Your task to perform on an android device: Clear the cart on walmart. Search for "razer blade" on walmart, select the first entry, and add it to the cart. Image 0: 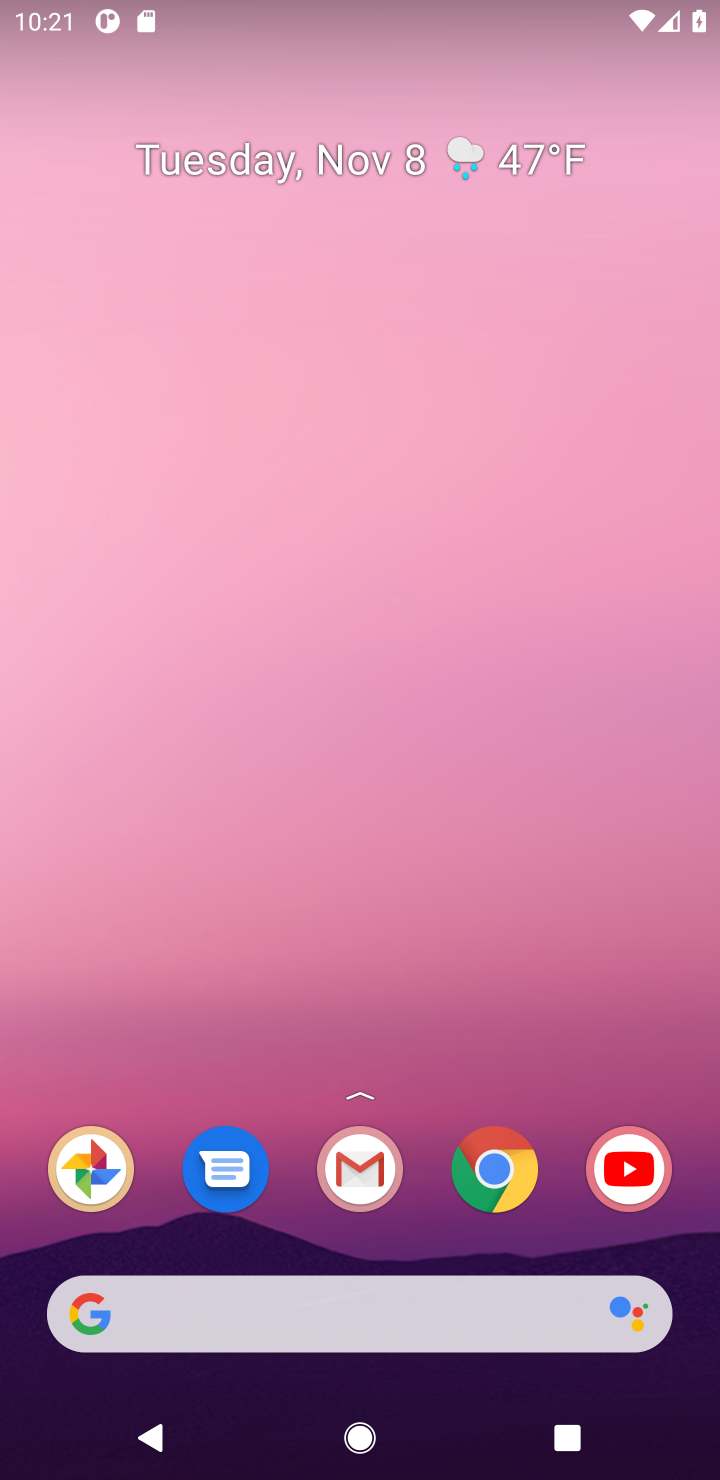
Step 0: click (504, 1176)
Your task to perform on an android device: Clear the cart on walmart. Search for "razer blade" on walmart, select the first entry, and add it to the cart. Image 1: 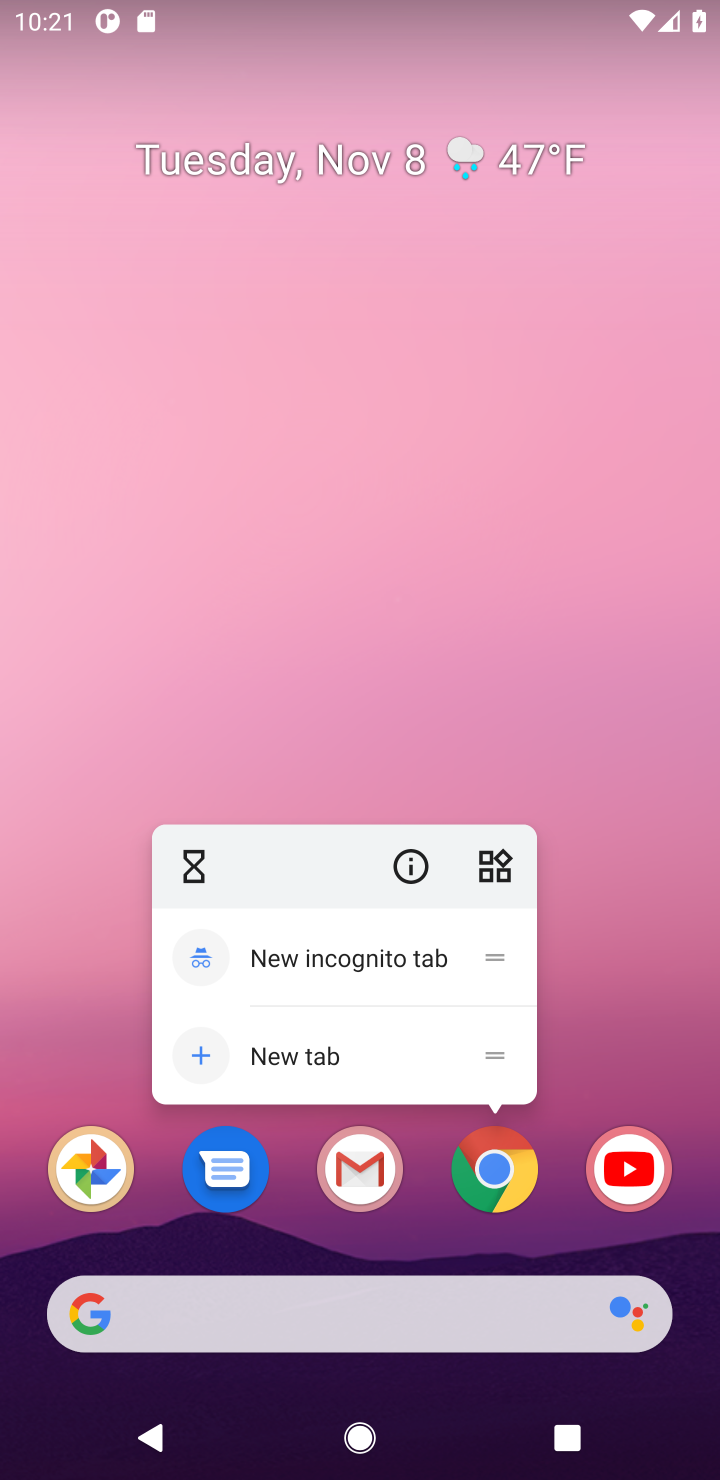
Step 1: click (505, 1175)
Your task to perform on an android device: Clear the cart on walmart. Search for "razer blade" on walmart, select the first entry, and add it to the cart. Image 2: 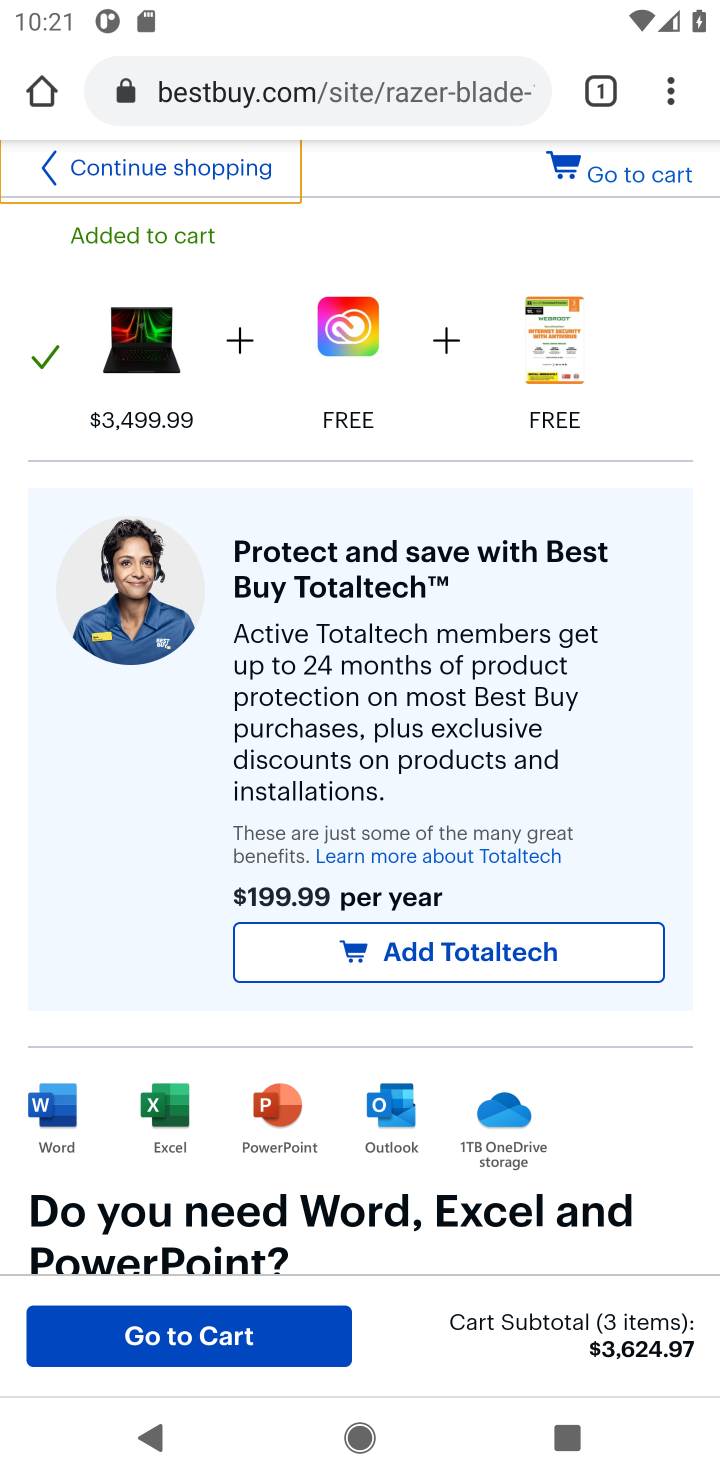
Step 2: click (225, 83)
Your task to perform on an android device: Clear the cart on walmart. Search for "razer blade" on walmart, select the first entry, and add it to the cart. Image 3: 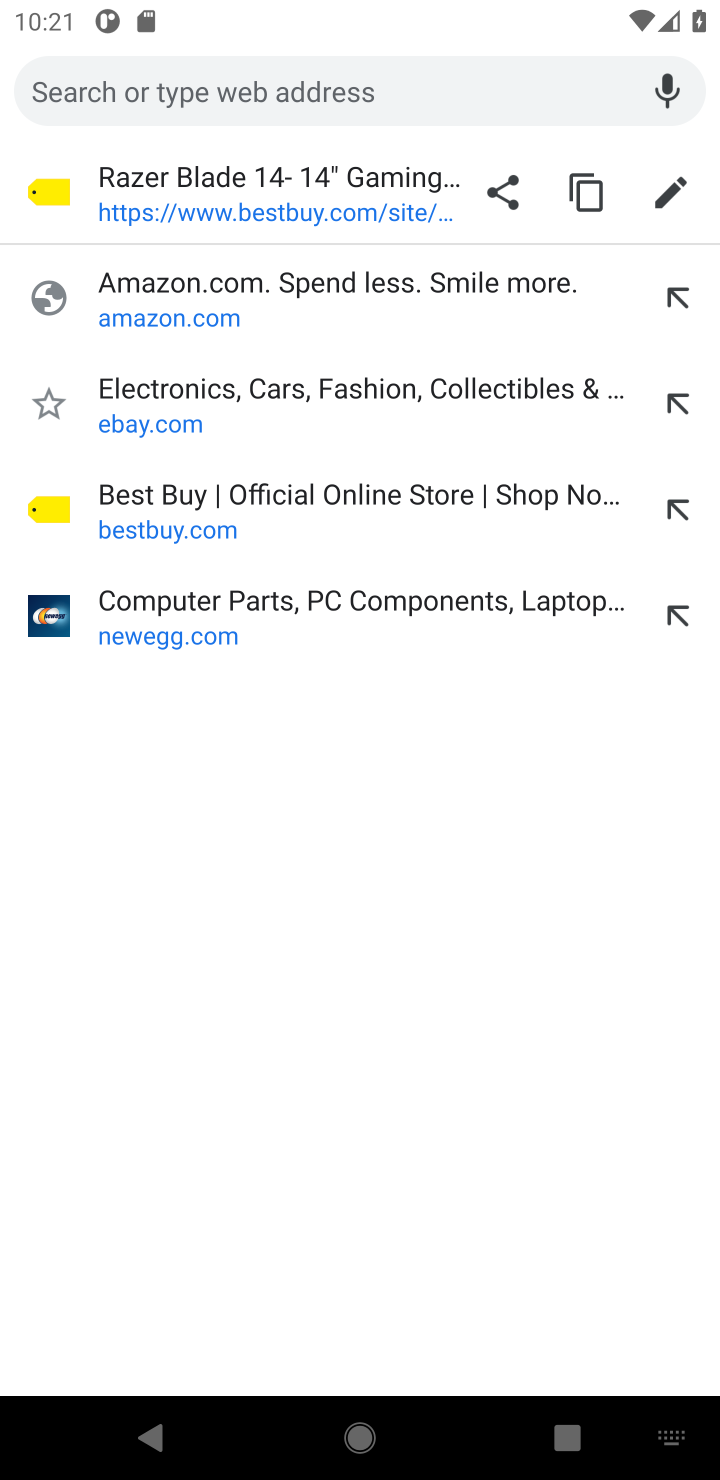
Step 3: type "walmart"
Your task to perform on an android device: Clear the cart on walmart. Search for "razer blade" on walmart, select the first entry, and add it to the cart. Image 4: 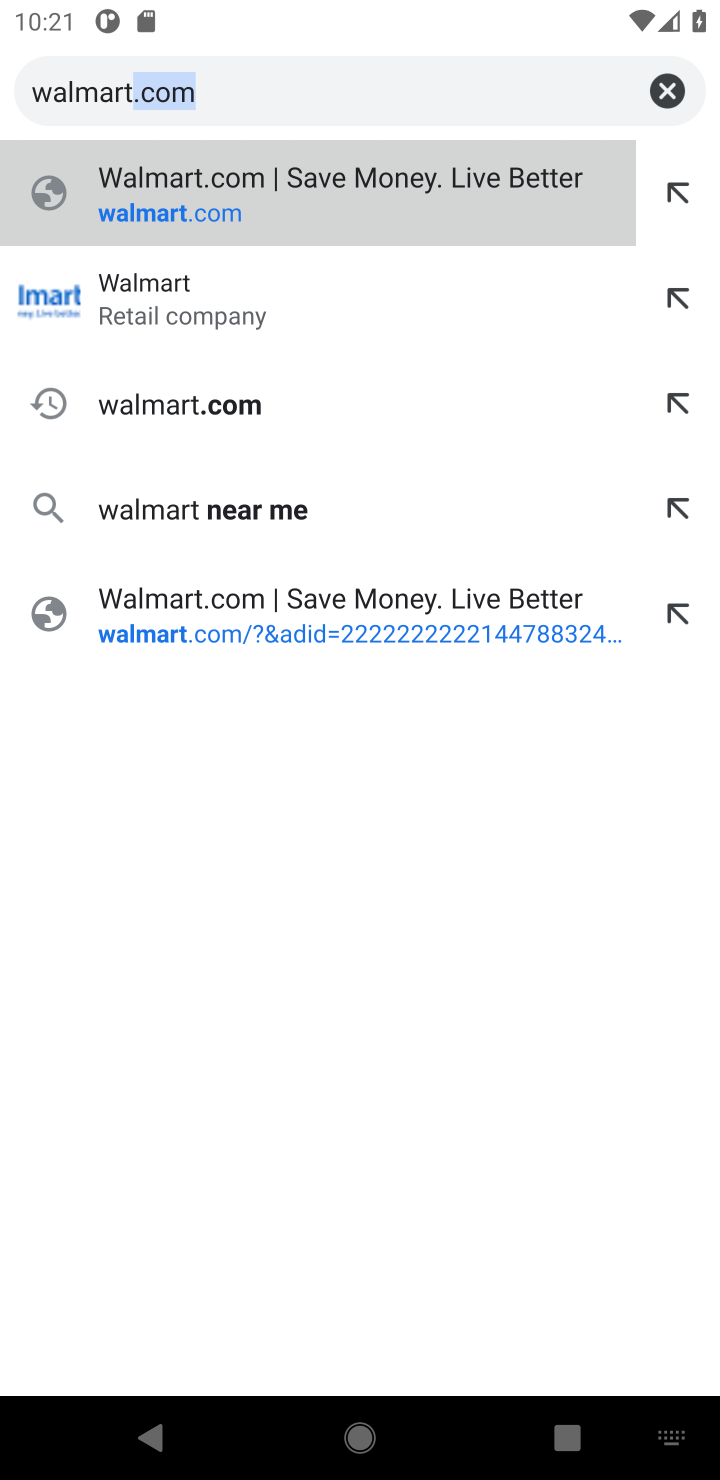
Step 4: click (392, 71)
Your task to perform on an android device: Clear the cart on walmart. Search for "razer blade" on walmart, select the first entry, and add it to the cart. Image 5: 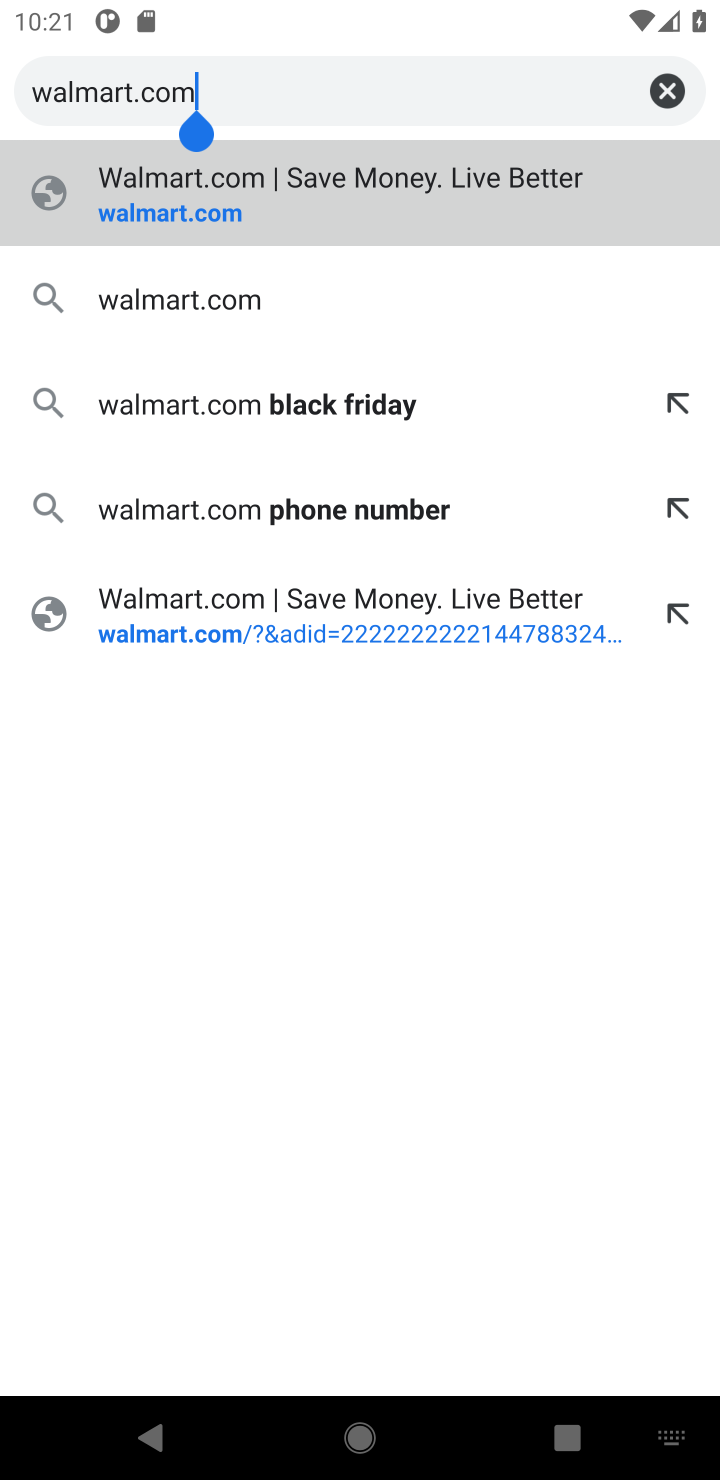
Step 5: click (226, 296)
Your task to perform on an android device: Clear the cart on walmart. Search for "razer blade" on walmart, select the first entry, and add it to the cart. Image 6: 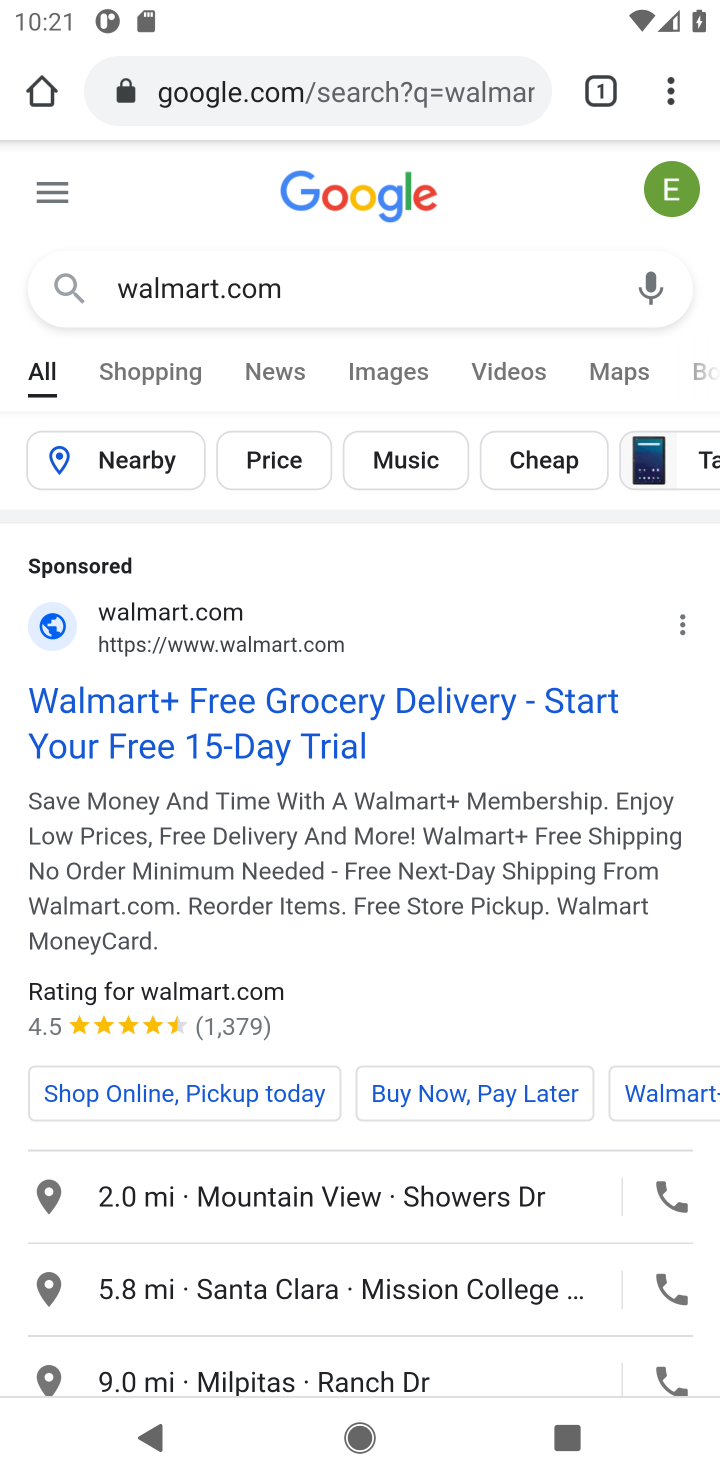
Step 6: click (202, 618)
Your task to perform on an android device: Clear the cart on walmart. Search for "razer blade" on walmart, select the first entry, and add it to the cart. Image 7: 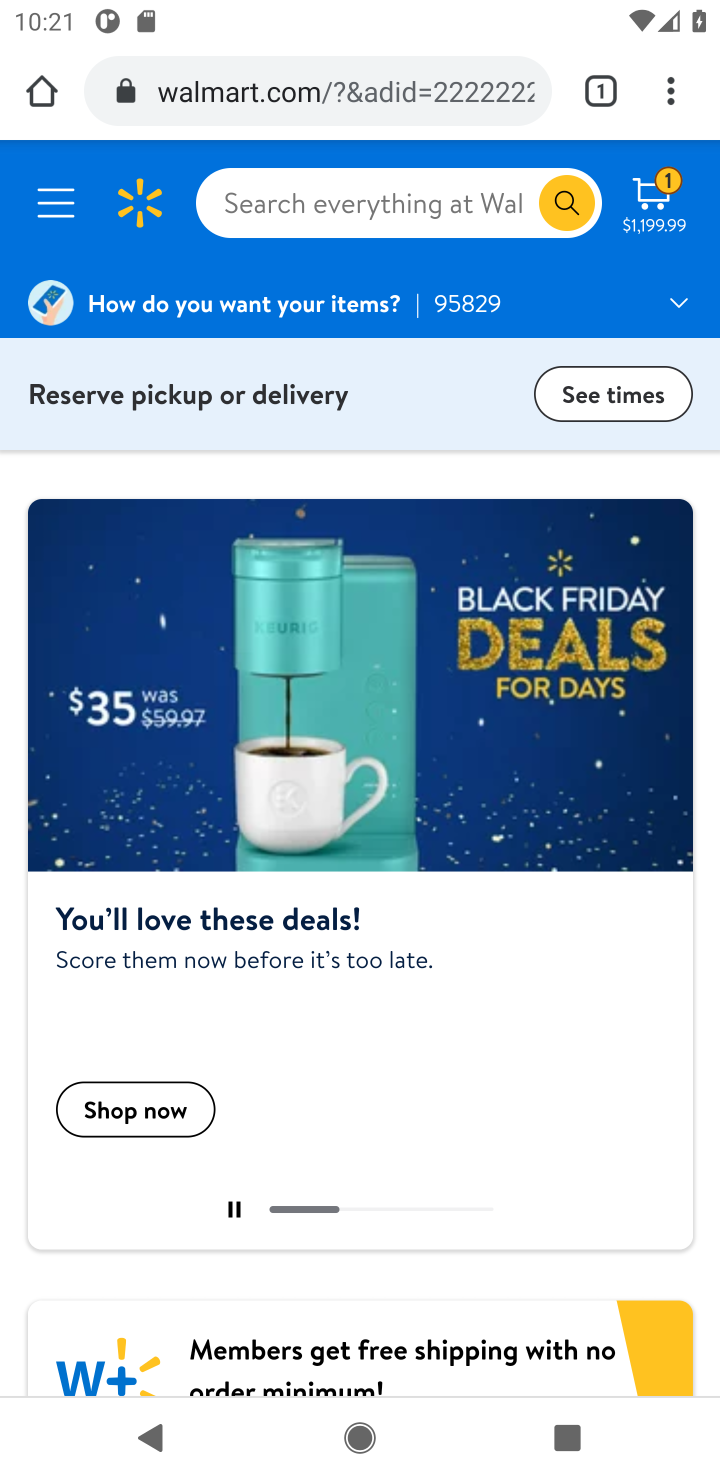
Step 7: click (649, 203)
Your task to perform on an android device: Clear the cart on walmart. Search for "razer blade" on walmart, select the first entry, and add it to the cart. Image 8: 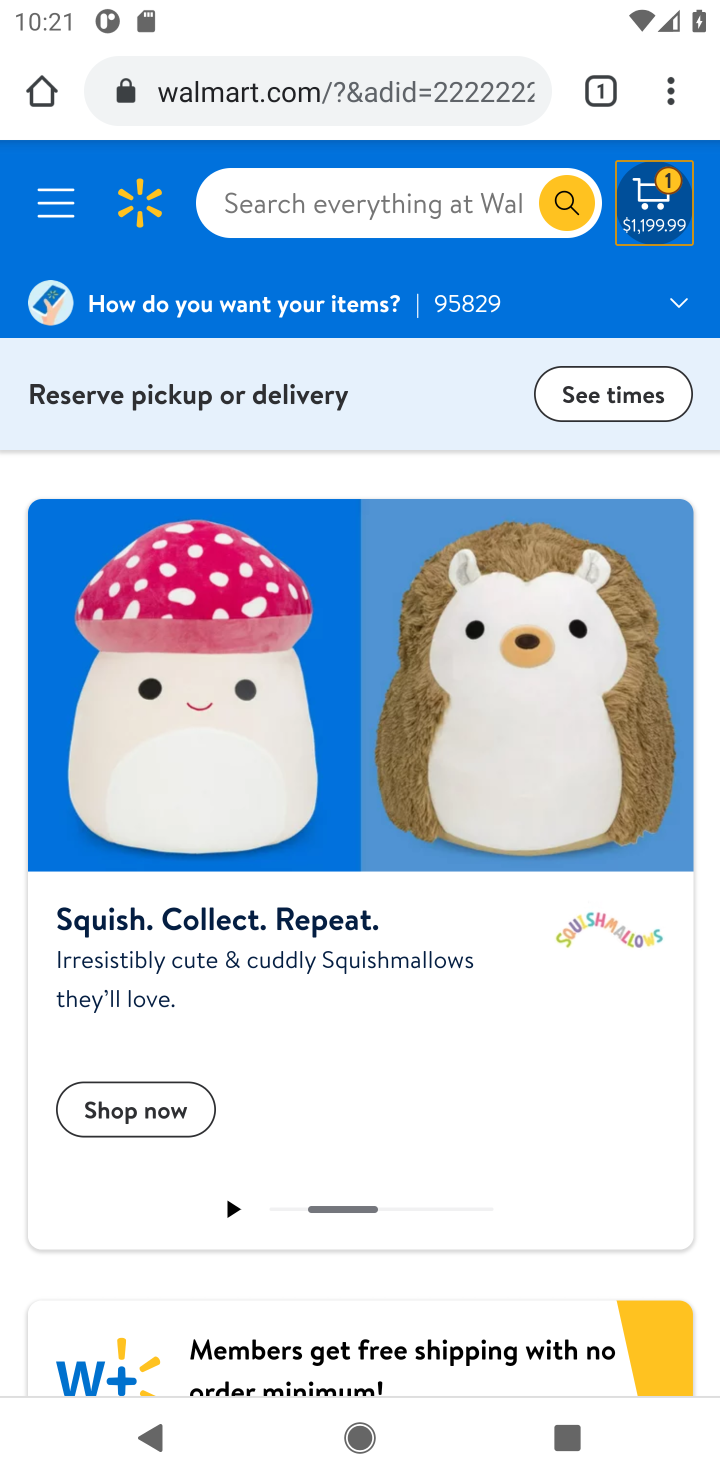
Step 8: click (628, 190)
Your task to perform on an android device: Clear the cart on walmart. Search for "razer blade" on walmart, select the first entry, and add it to the cart. Image 9: 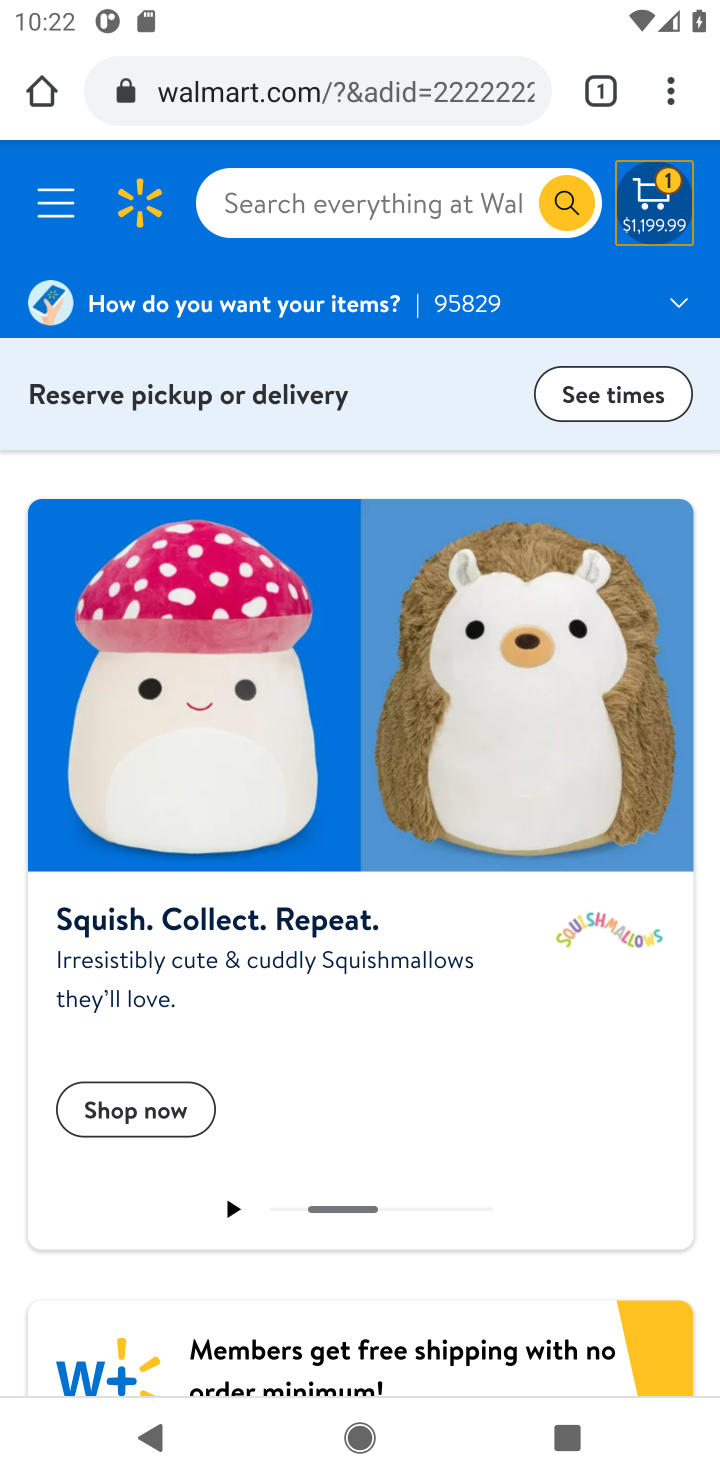
Step 9: click (637, 201)
Your task to perform on an android device: Clear the cart on walmart. Search for "razer blade" on walmart, select the first entry, and add it to the cart. Image 10: 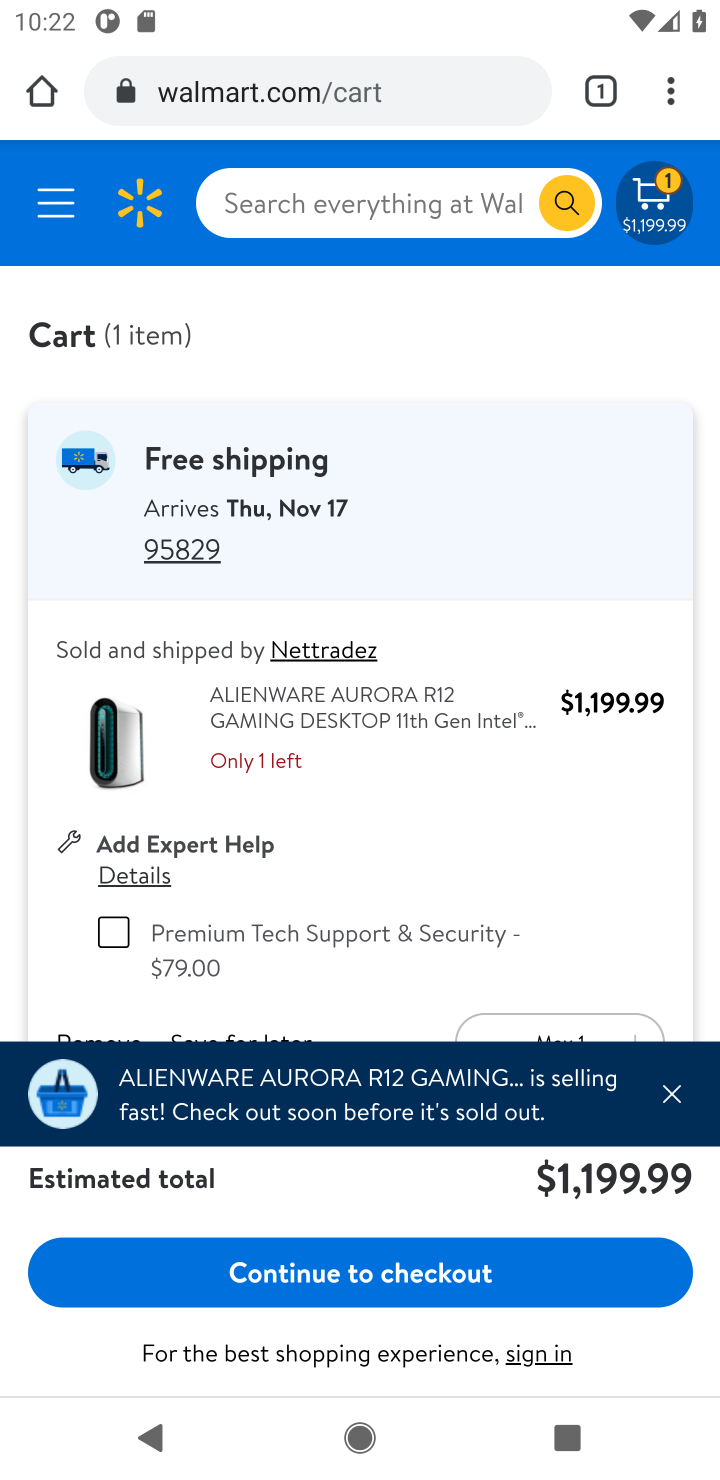
Step 10: drag from (372, 830) to (487, 387)
Your task to perform on an android device: Clear the cart on walmart. Search for "razer blade" on walmart, select the first entry, and add it to the cart. Image 11: 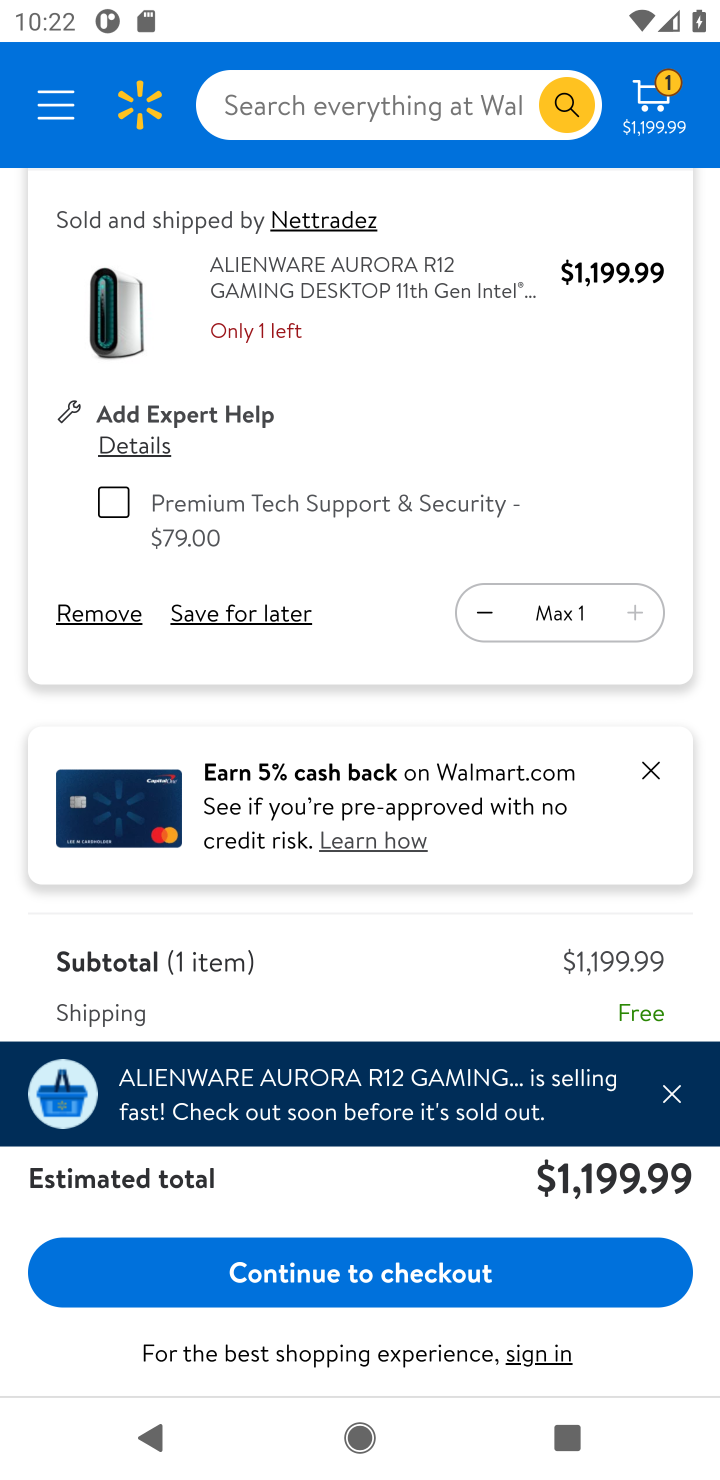
Step 11: click (91, 611)
Your task to perform on an android device: Clear the cart on walmart. Search for "razer blade" on walmart, select the first entry, and add it to the cart. Image 12: 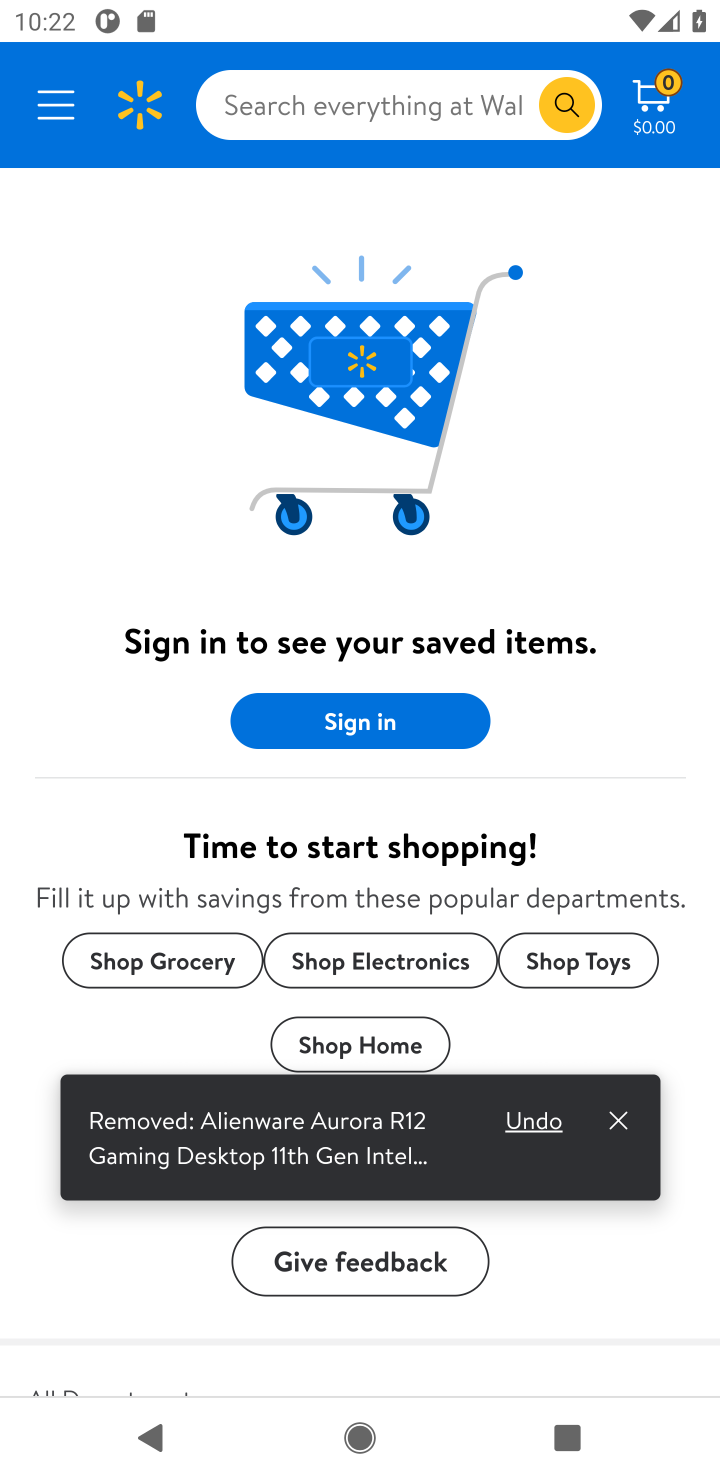
Step 12: click (478, 81)
Your task to perform on an android device: Clear the cart on walmart. Search for "razer blade" on walmart, select the first entry, and add it to the cart. Image 13: 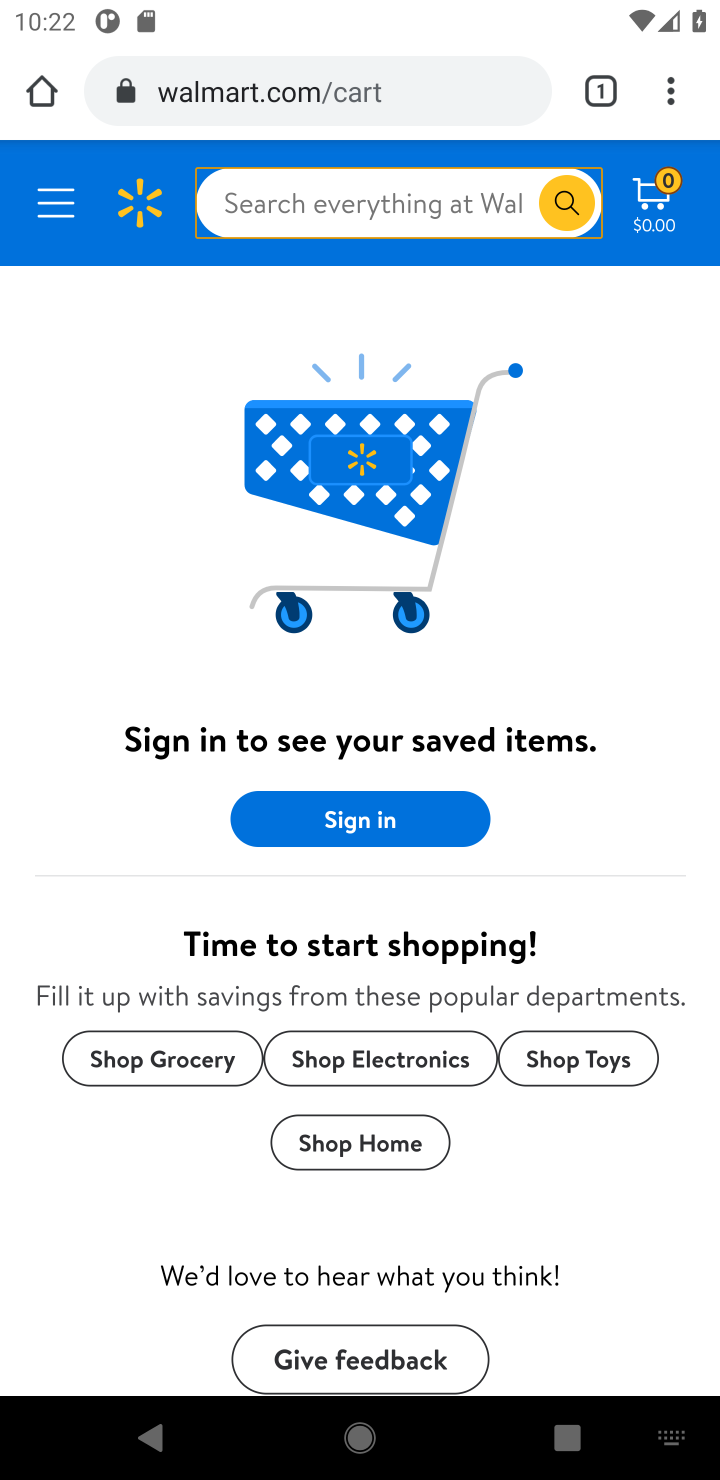
Step 13: type "razer blade"
Your task to perform on an android device: Clear the cart on walmart. Search for "razer blade" on walmart, select the first entry, and add it to the cart. Image 14: 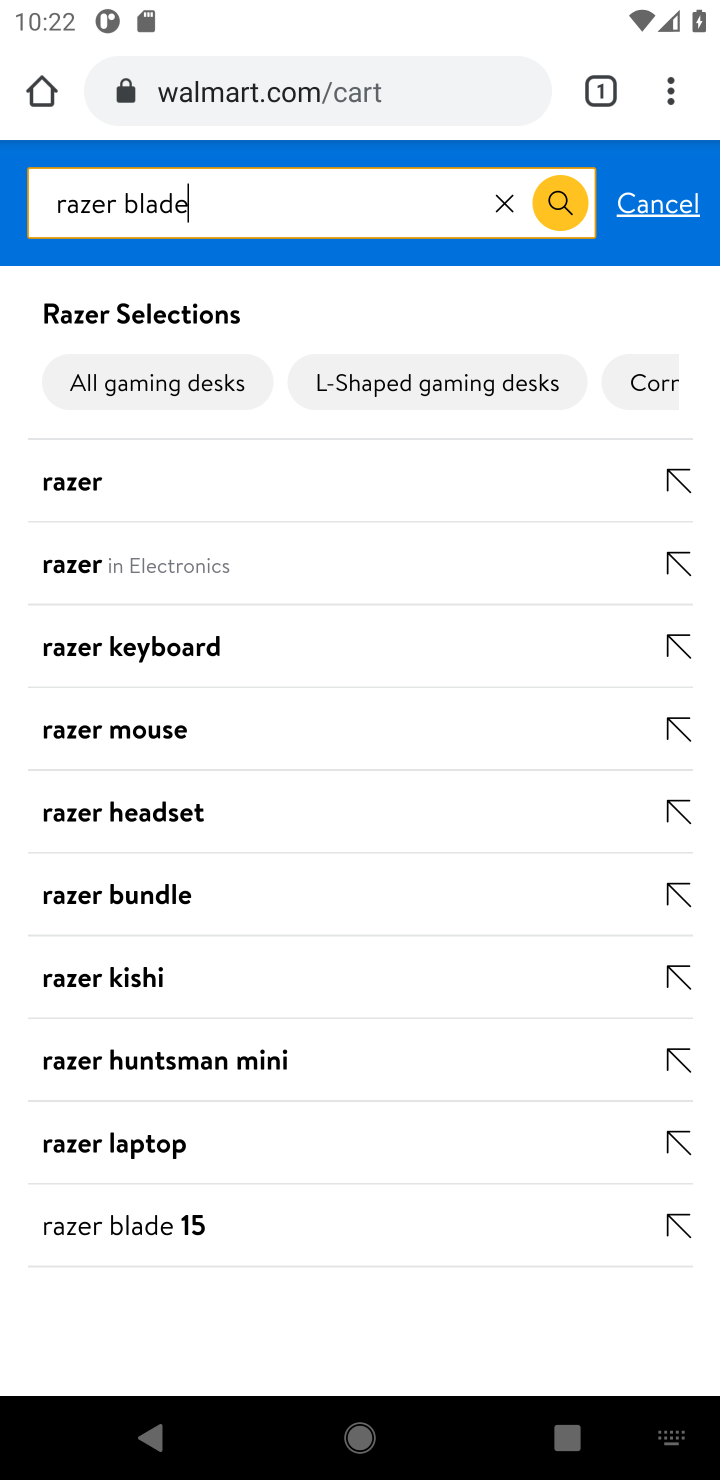
Step 14: press enter
Your task to perform on an android device: Clear the cart on walmart. Search for "razer blade" on walmart, select the first entry, and add it to the cart. Image 15: 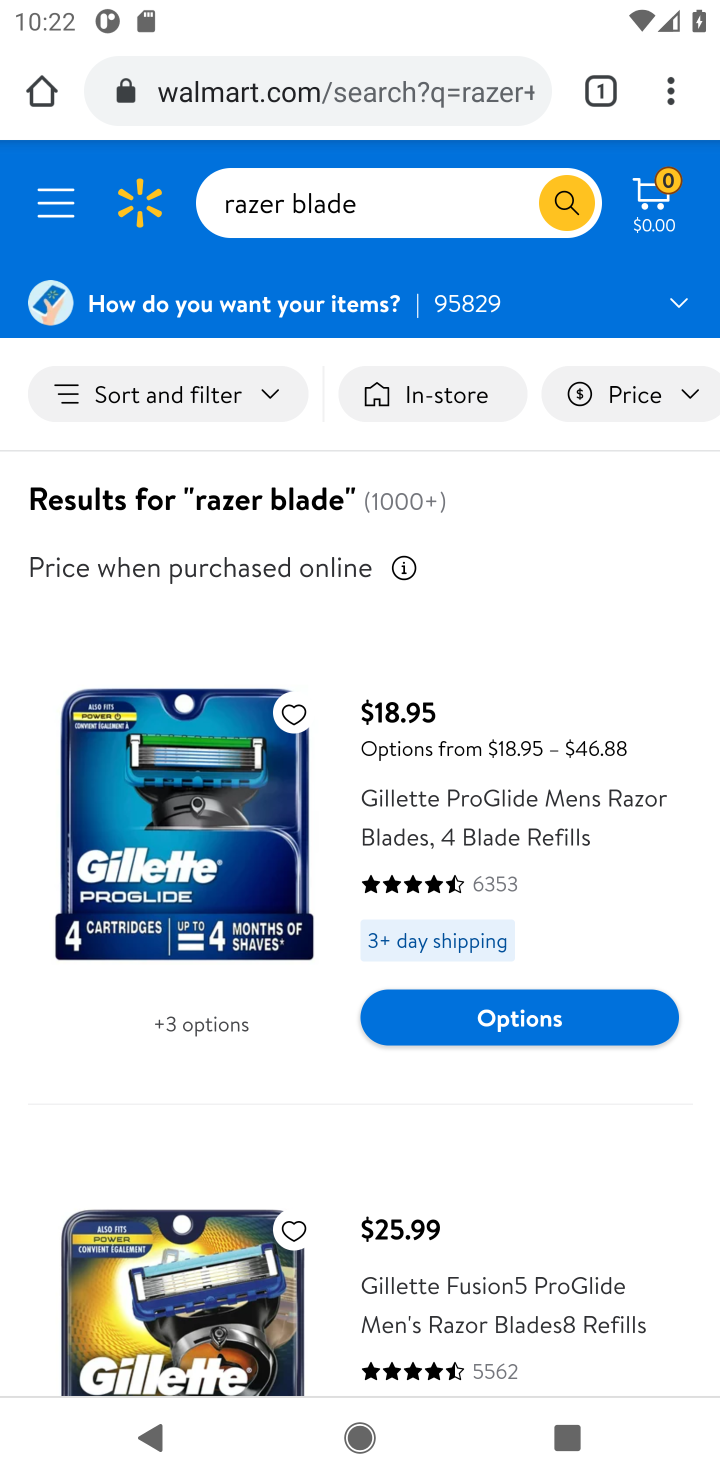
Step 15: drag from (203, 1318) to (454, 543)
Your task to perform on an android device: Clear the cart on walmart. Search for "razer blade" on walmart, select the first entry, and add it to the cart. Image 16: 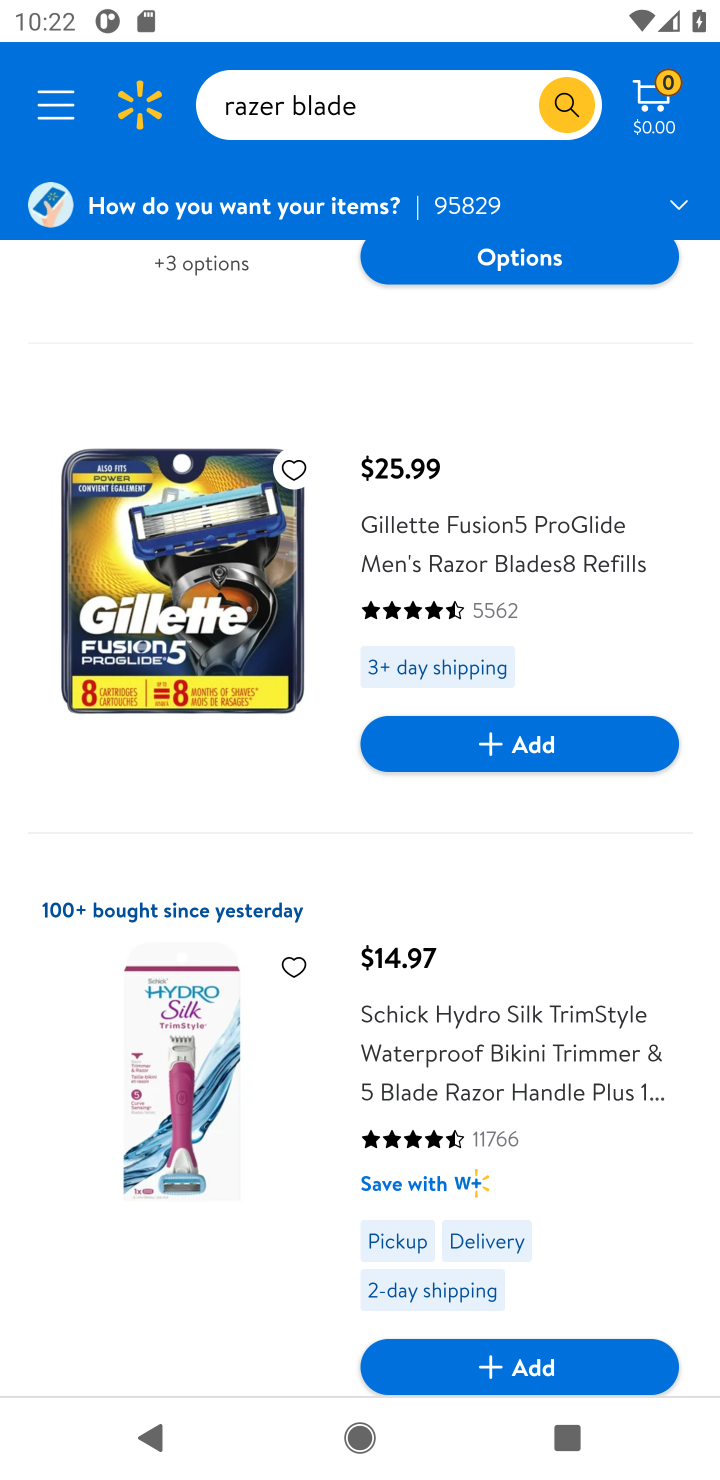
Step 16: drag from (231, 1203) to (403, 539)
Your task to perform on an android device: Clear the cart on walmart. Search for "razer blade" on walmart, select the first entry, and add it to the cart. Image 17: 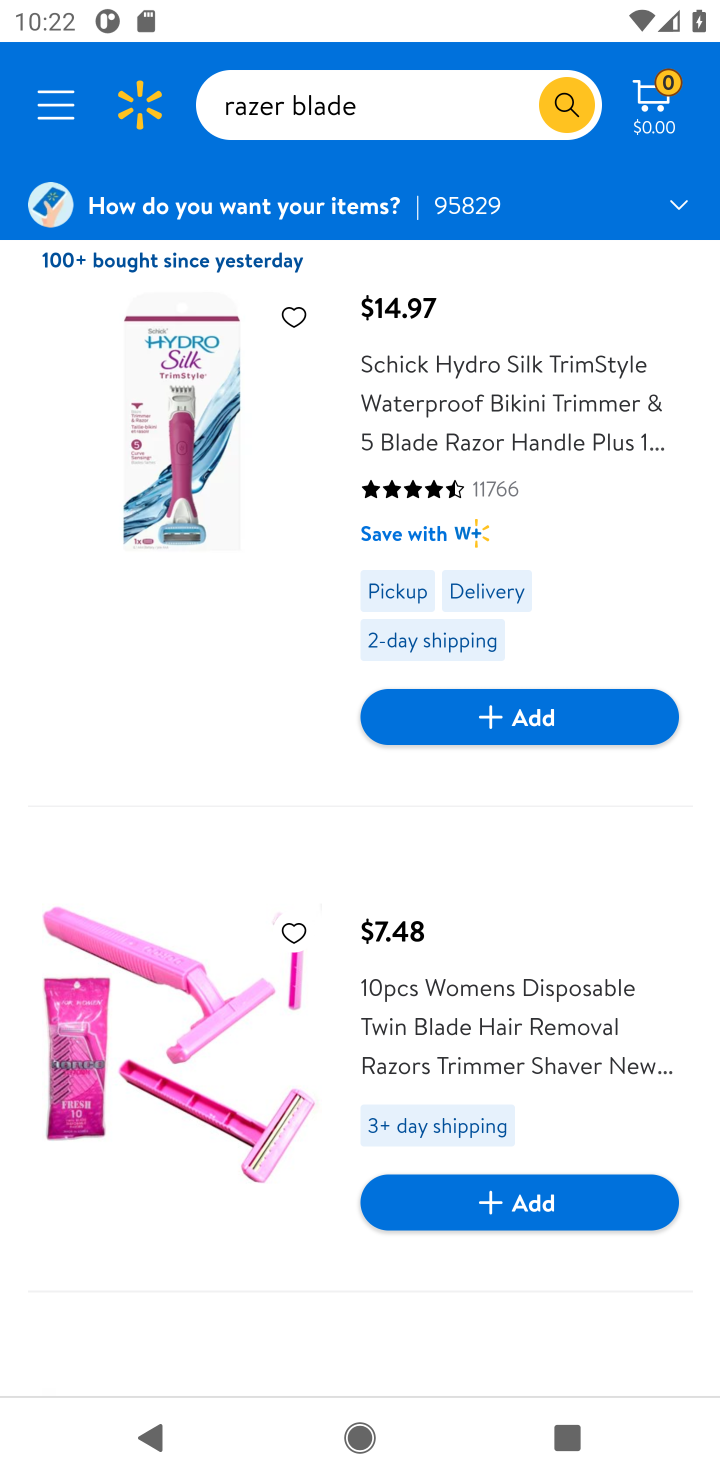
Step 17: drag from (167, 1002) to (394, 338)
Your task to perform on an android device: Clear the cart on walmart. Search for "razer blade" on walmart, select the first entry, and add it to the cart. Image 18: 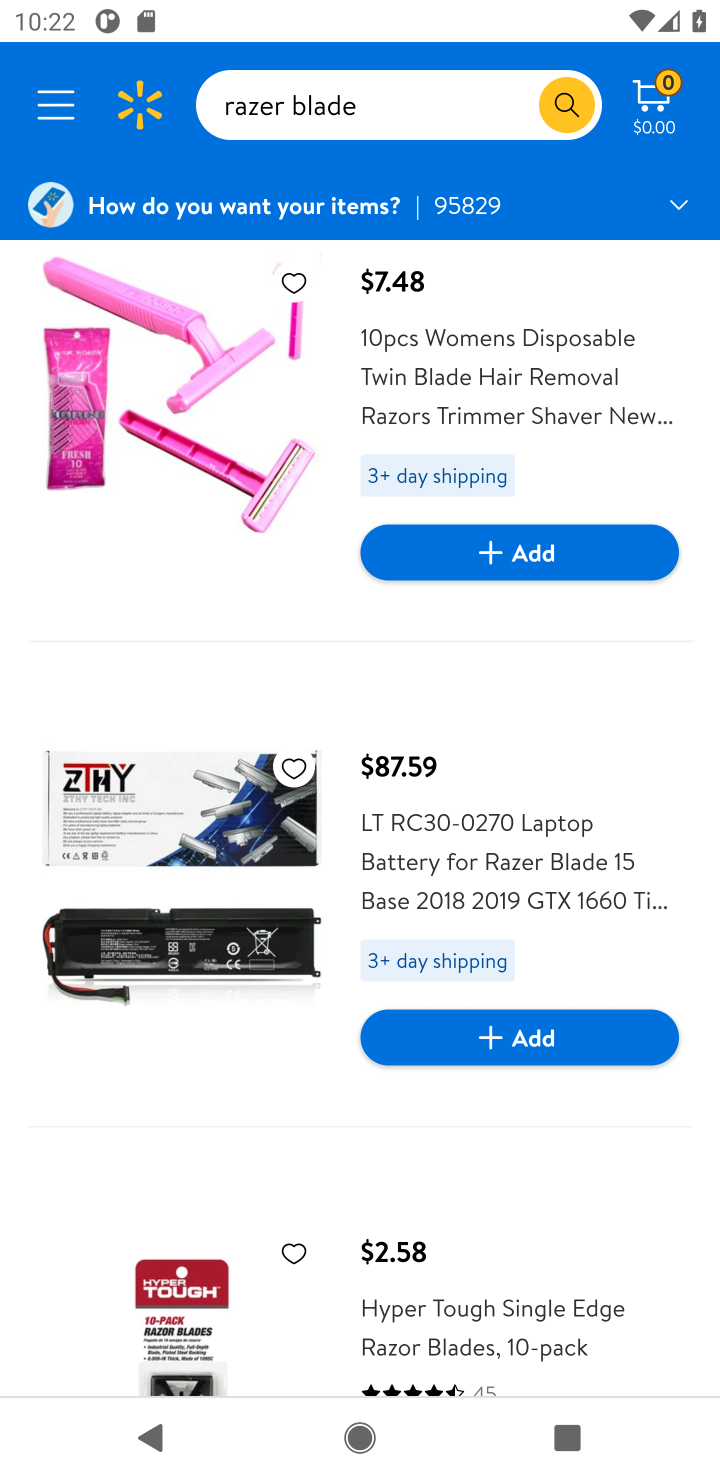
Step 18: click (90, 902)
Your task to perform on an android device: Clear the cart on walmart. Search for "razer blade" on walmart, select the first entry, and add it to the cart. Image 19: 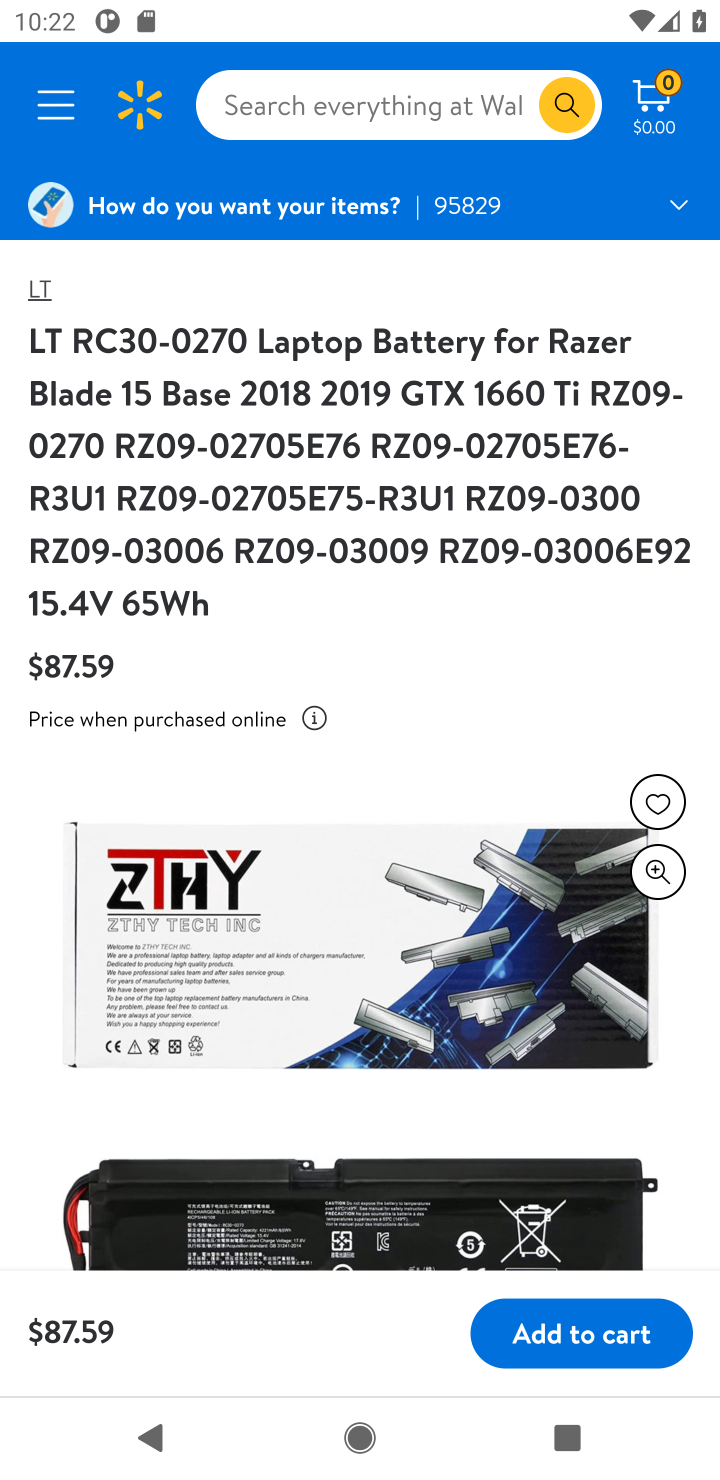
Step 19: click (532, 1339)
Your task to perform on an android device: Clear the cart on walmart. Search for "razer blade" on walmart, select the first entry, and add it to the cart. Image 20: 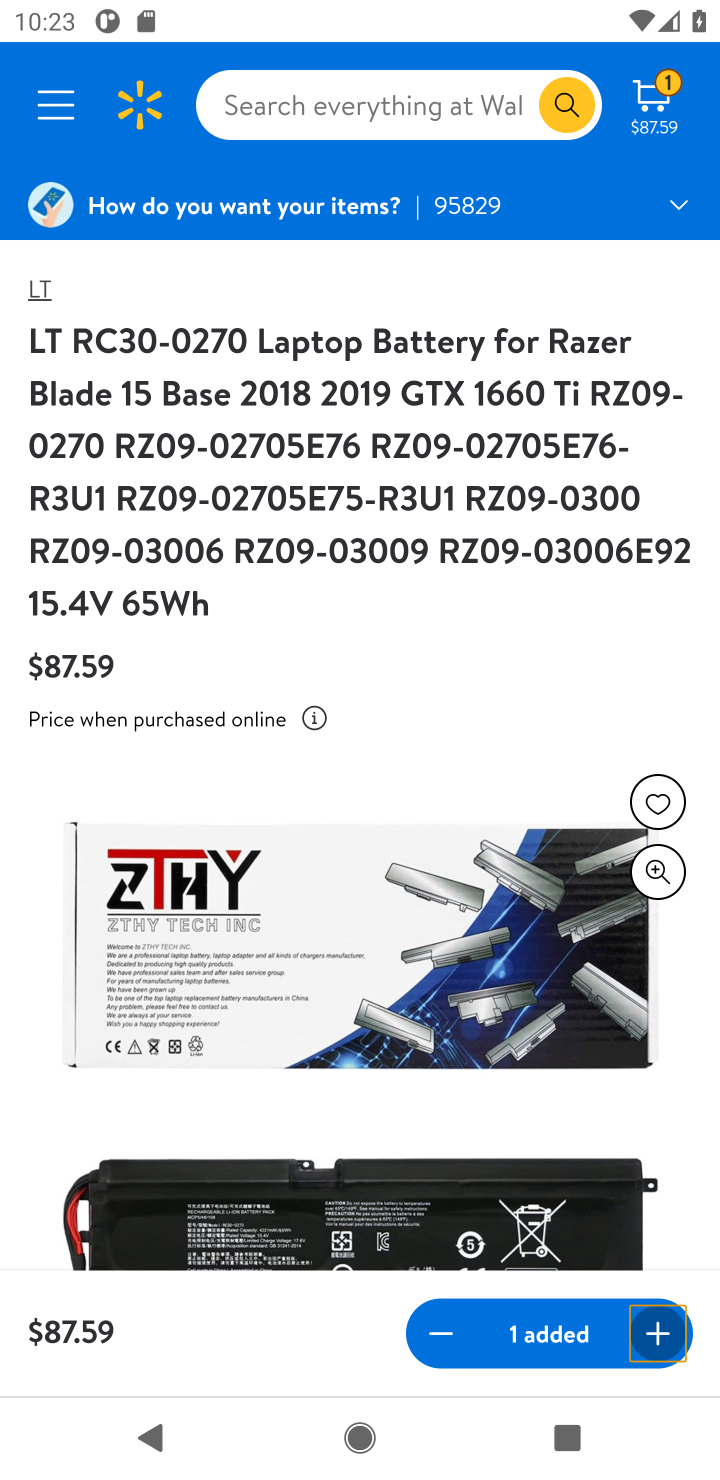
Step 20: task complete